Your task to perform on an android device: Open Wikipedia Image 0: 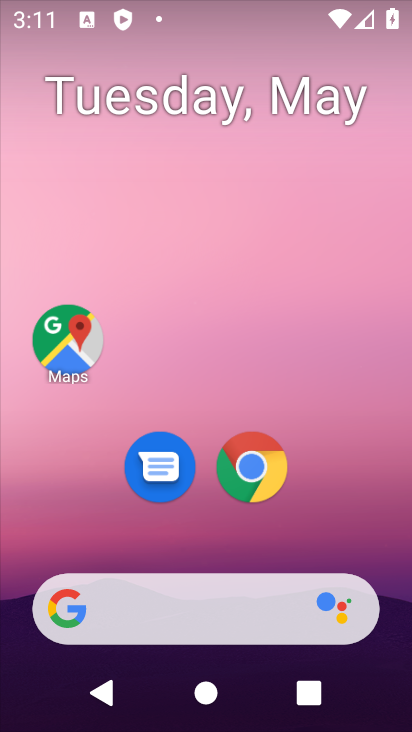
Step 0: click (224, 588)
Your task to perform on an android device: Open Wikipedia Image 1: 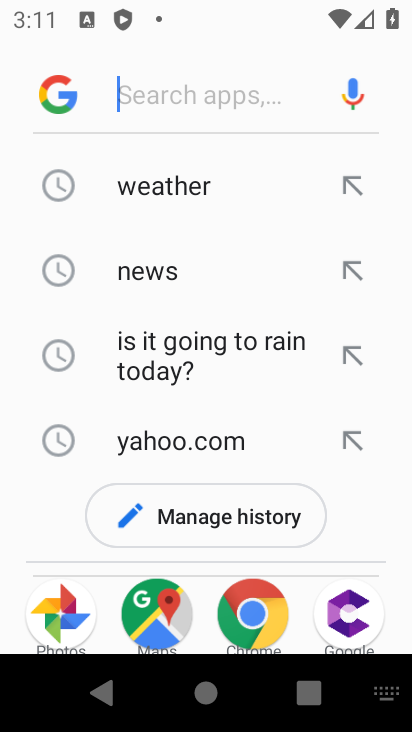
Step 1: click (187, 449)
Your task to perform on an android device: Open Wikipedia Image 2: 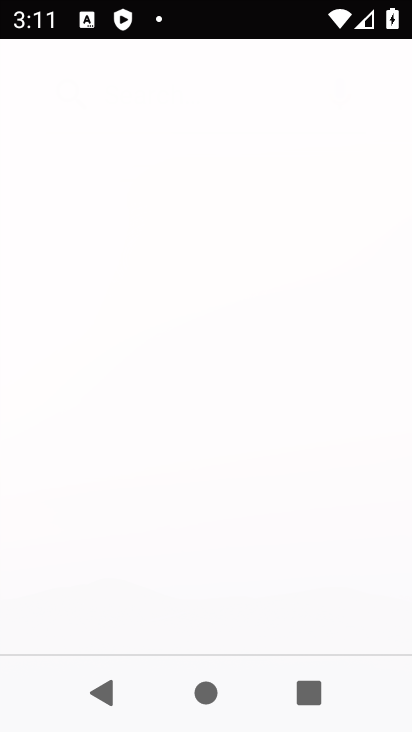
Step 2: task complete